Your task to perform on an android device: check google app version Image 0: 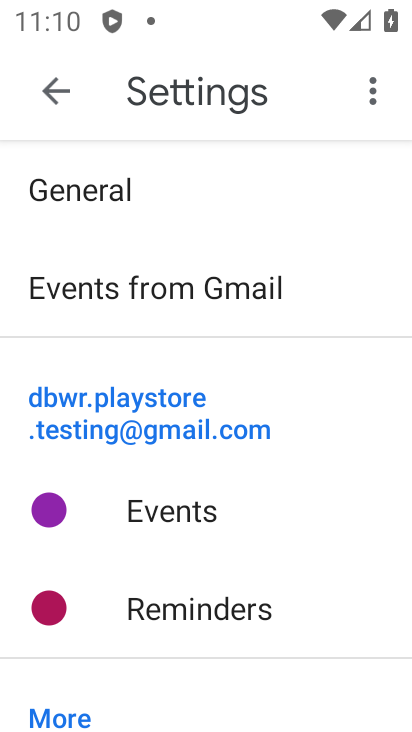
Step 0: press home button
Your task to perform on an android device: check google app version Image 1: 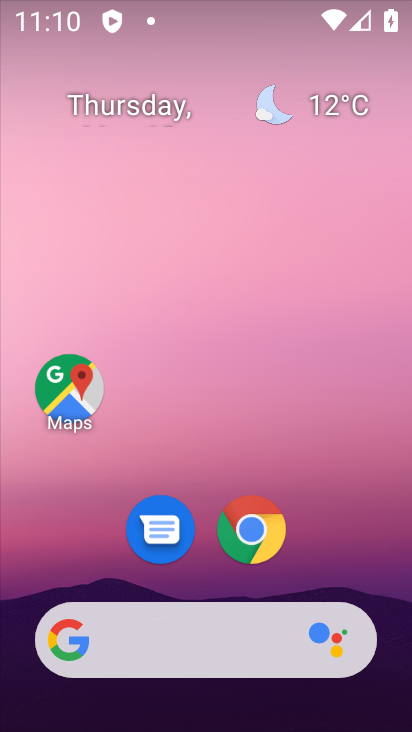
Step 1: drag from (334, 549) to (330, 360)
Your task to perform on an android device: check google app version Image 2: 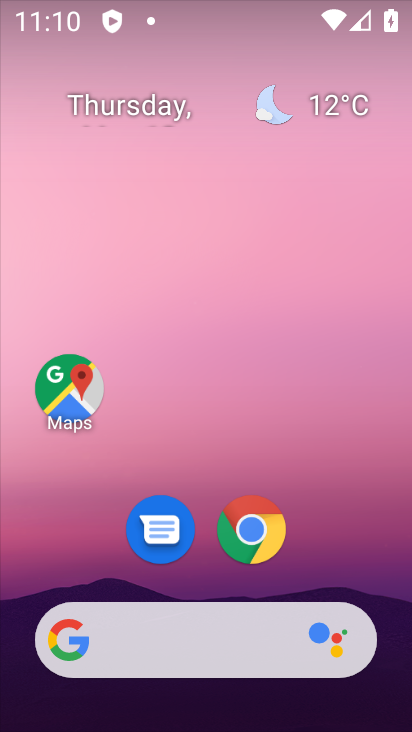
Step 2: drag from (328, 542) to (291, 216)
Your task to perform on an android device: check google app version Image 3: 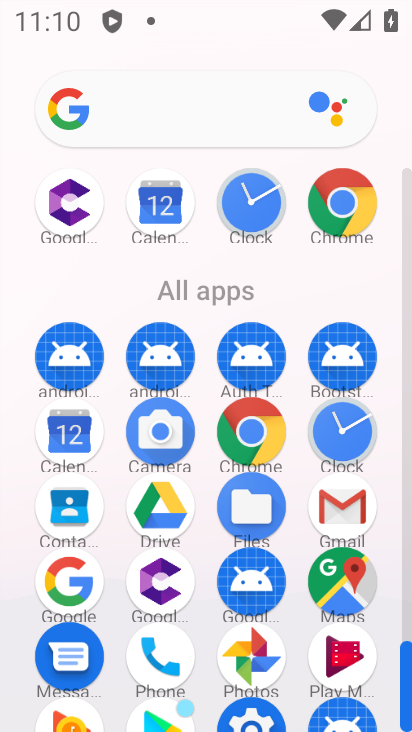
Step 3: drag from (155, 619) to (217, 369)
Your task to perform on an android device: check google app version Image 4: 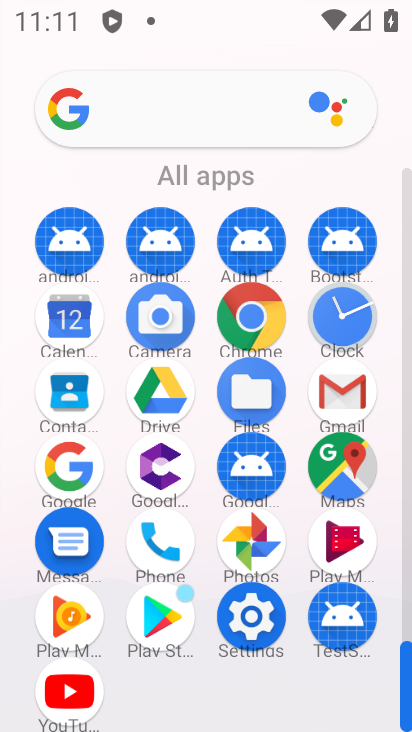
Step 4: click (55, 467)
Your task to perform on an android device: check google app version Image 5: 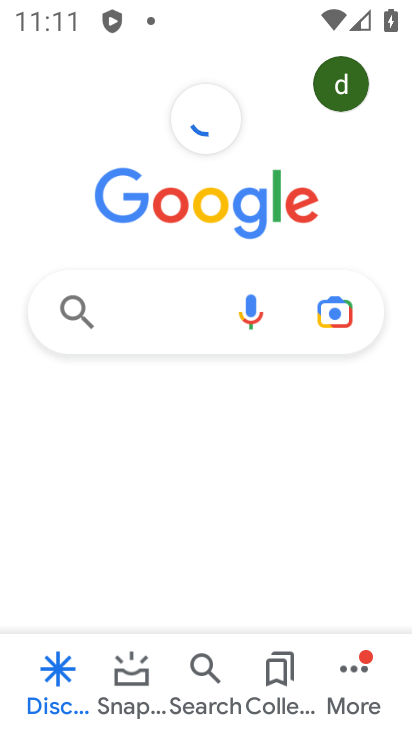
Step 5: click (338, 73)
Your task to perform on an android device: check google app version Image 6: 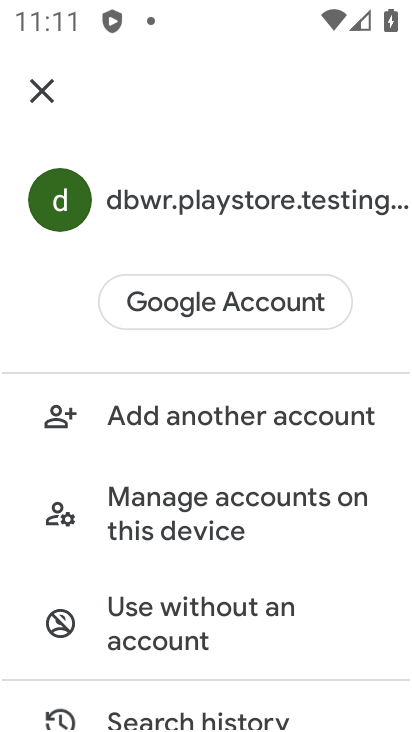
Step 6: drag from (221, 628) to (249, 283)
Your task to perform on an android device: check google app version Image 7: 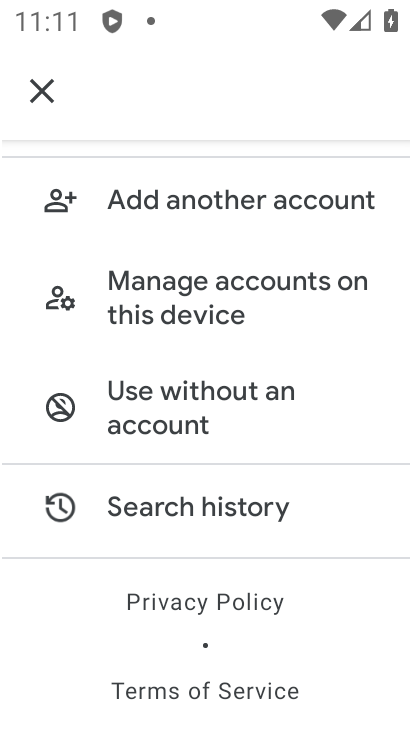
Step 7: drag from (184, 601) to (225, 374)
Your task to perform on an android device: check google app version Image 8: 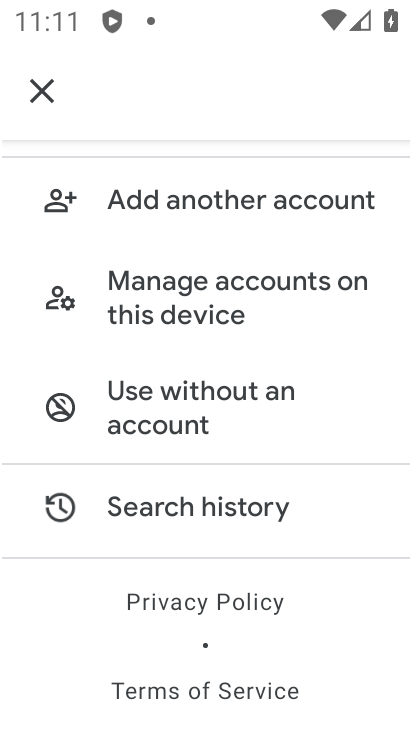
Step 8: drag from (247, 325) to (223, 706)
Your task to perform on an android device: check google app version Image 9: 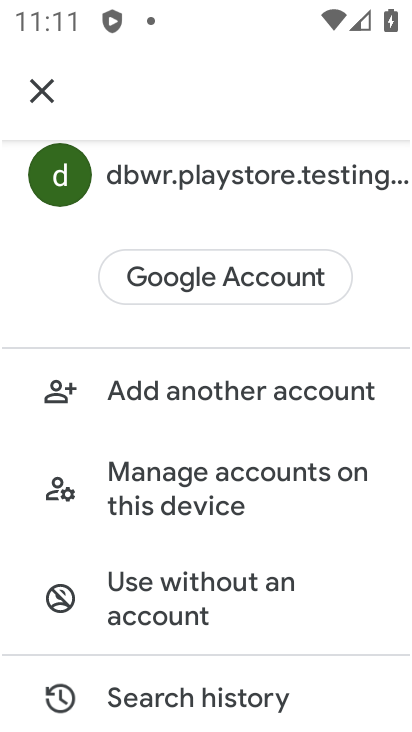
Step 9: drag from (203, 654) to (225, 311)
Your task to perform on an android device: check google app version Image 10: 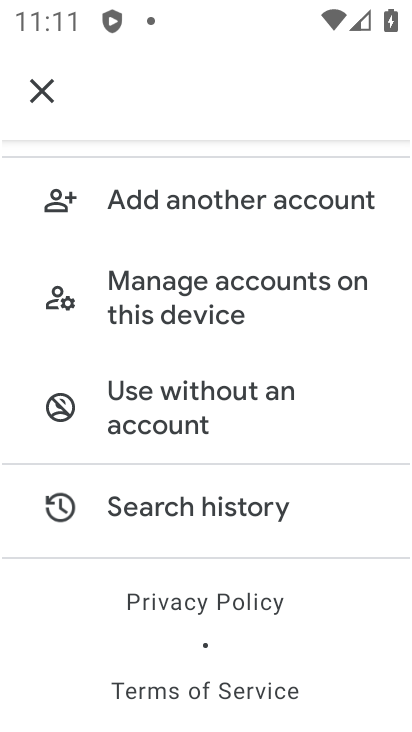
Step 10: click (41, 93)
Your task to perform on an android device: check google app version Image 11: 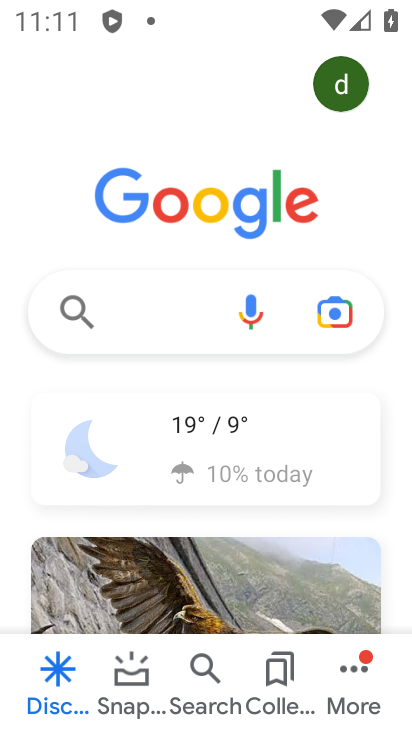
Step 11: click (367, 667)
Your task to perform on an android device: check google app version Image 12: 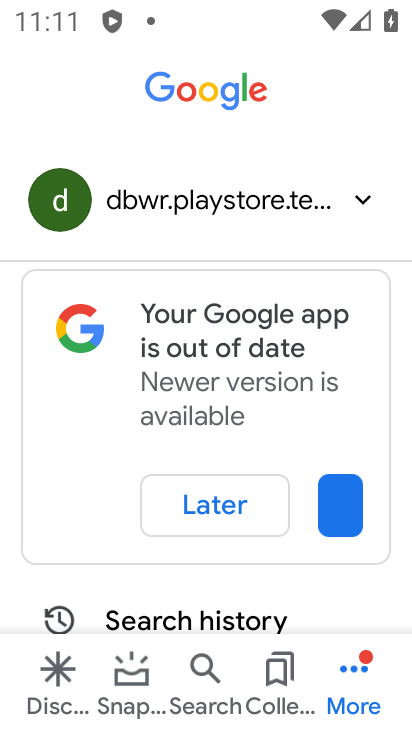
Step 12: drag from (347, 564) to (306, 165)
Your task to perform on an android device: check google app version Image 13: 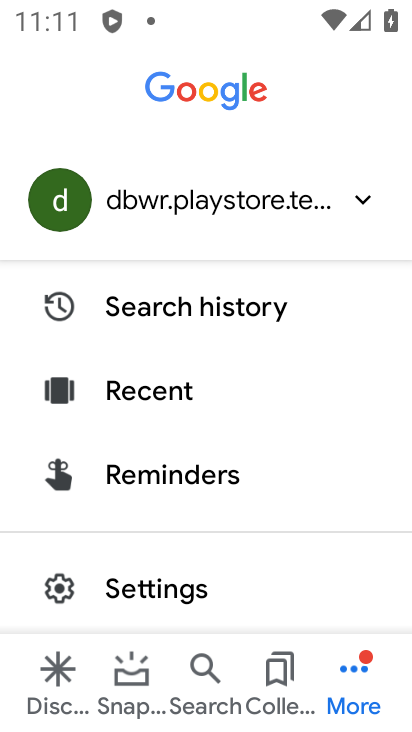
Step 13: click (144, 570)
Your task to perform on an android device: check google app version Image 14: 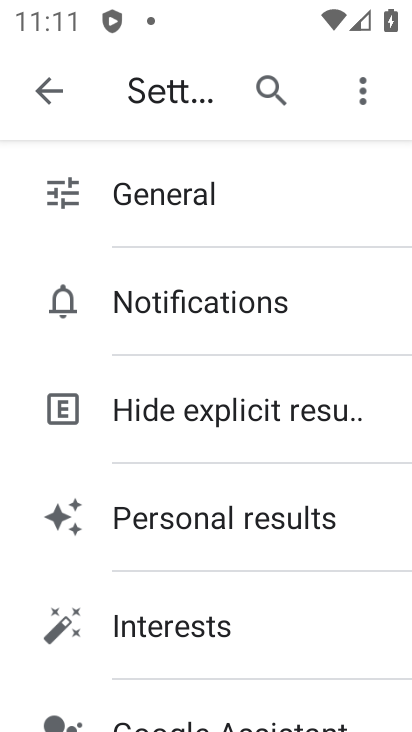
Step 14: drag from (217, 579) to (261, 268)
Your task to perform on an android device: check google app version Image 15: 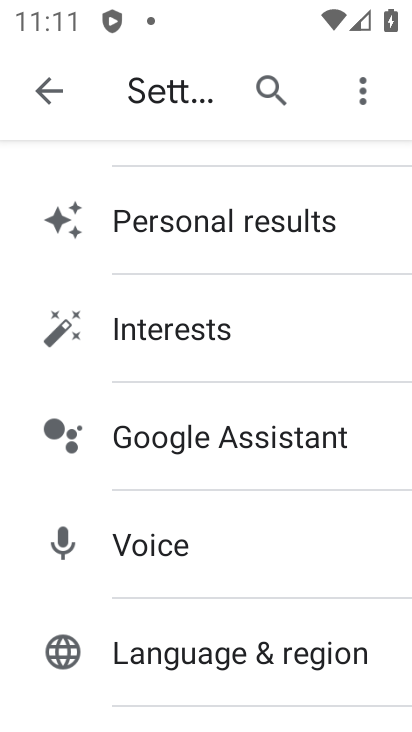
Step 15: drag from (230, 609) to (238, 244)
Your task to perform on an android device: check google app version Image 16: 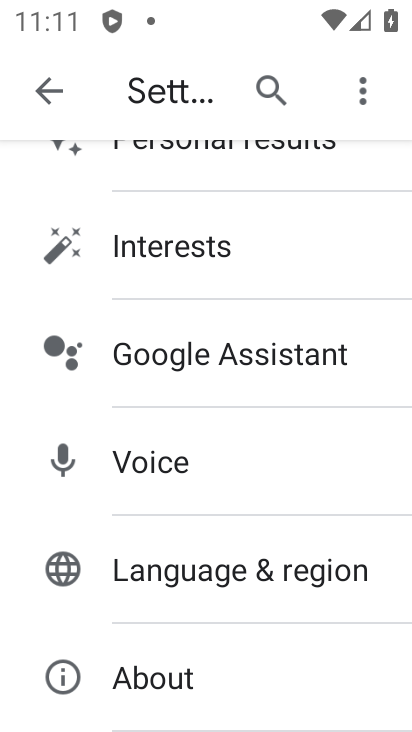
Step 16: click (178, 669)
Your task to perform on an android device: check google app version Image 17: 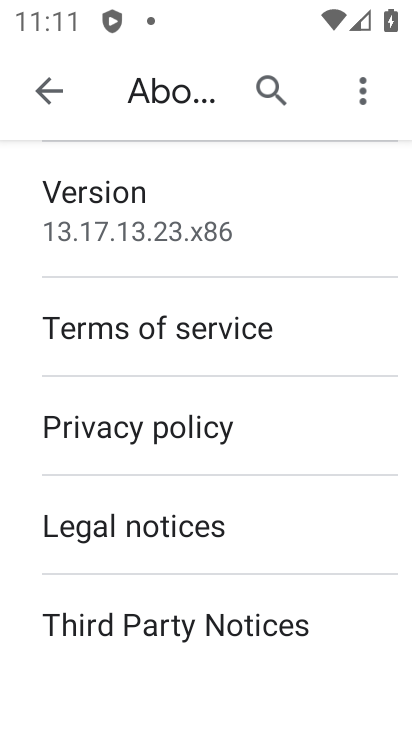
Step 17: task complete